Your task to perform on an android device: Go to internet settings Image 0: 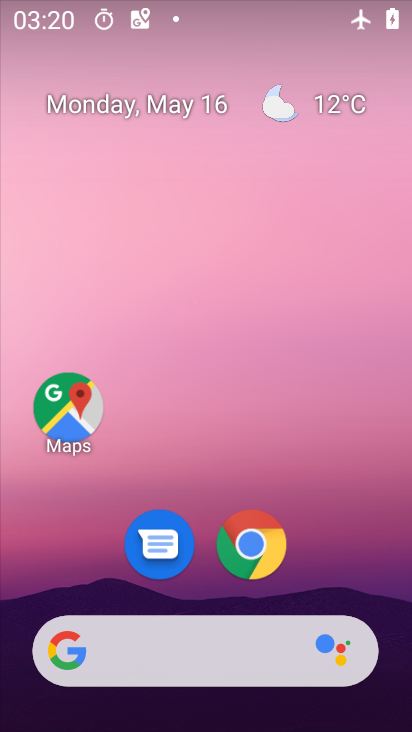
Step 0: drag from (229, 727) to (250, 73)
Your task to perform on an android device: Go to internet settings Image 1: 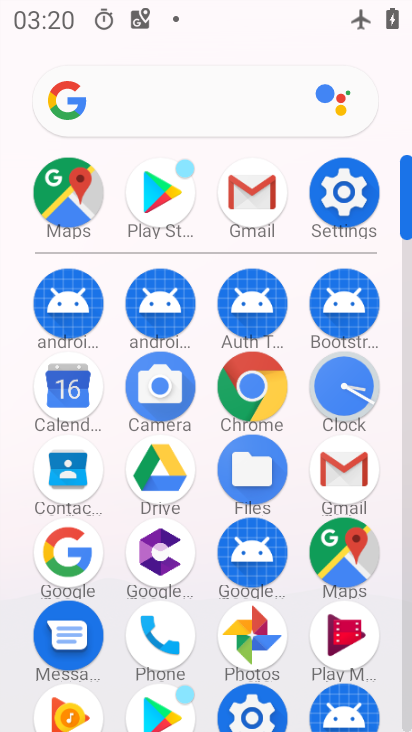
Step 1: click (338, 197)
Your task to perform on an android device: Go to internet settings Image 2: 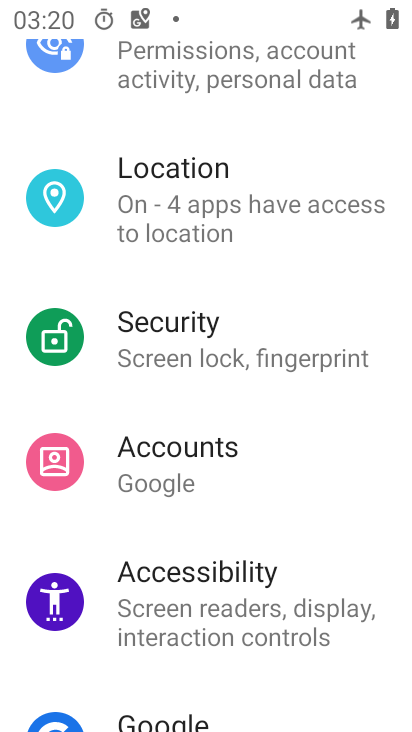
Step 2: drag from (266, 145) to (235, 558)
Your task to perform on an android device: Go to internet settings Image 3: 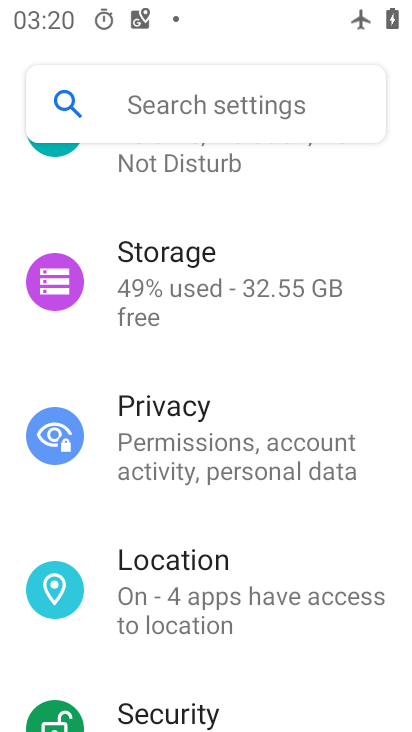
Step 3: drag from (220, 216) to (204, 594)
Your task to perform on an android device: Go to internet settings Image 4: 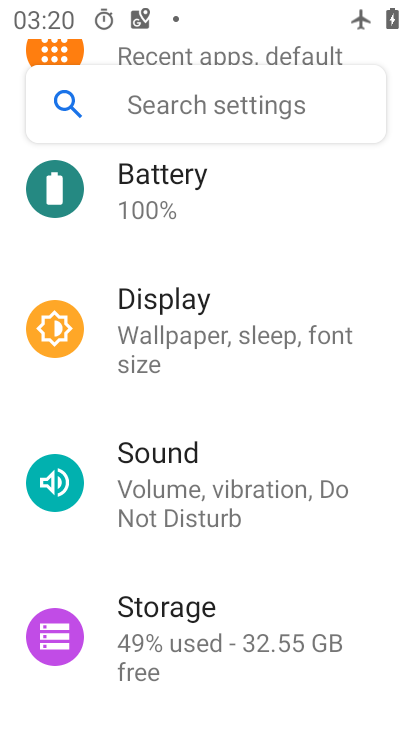
Step 4: drag from (231, 194) to (185, 493)
Your task to perform on an android device: Go to internet settings Image 5: 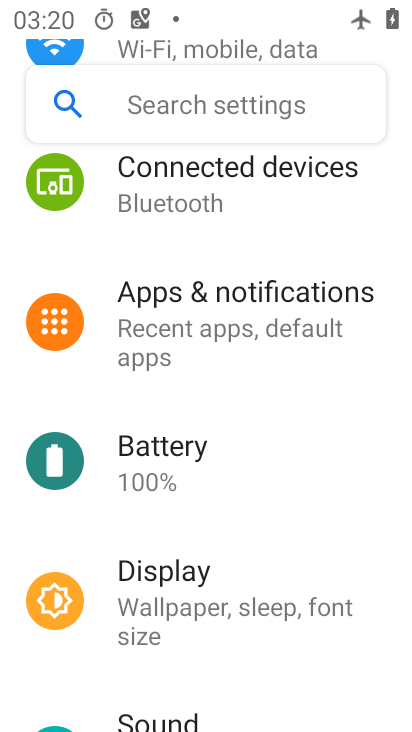
Step 5: drag from (212, 196) to (160, 521)
Your task to perform on an android device: Go to internet settings Image 6: 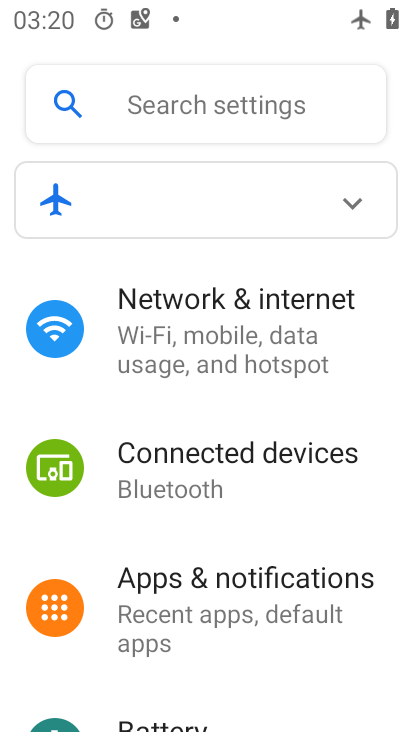
Step 6: click (169, 327)
Your task to perform on an android device: Go to internet settings Image 7: 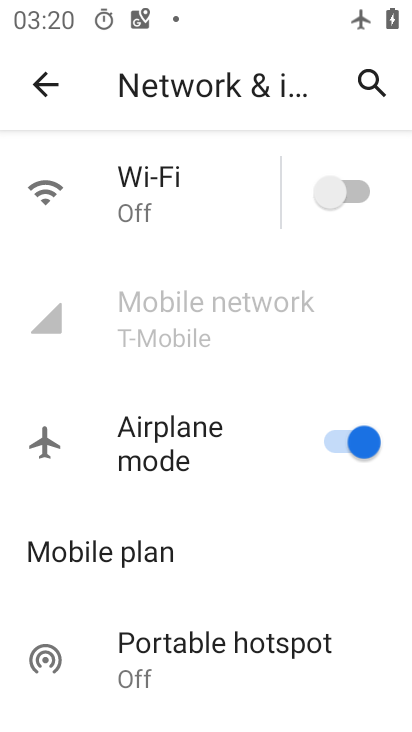
Step 7: task complete